Your task to perform on an android device: turn notification dots off Image 0: 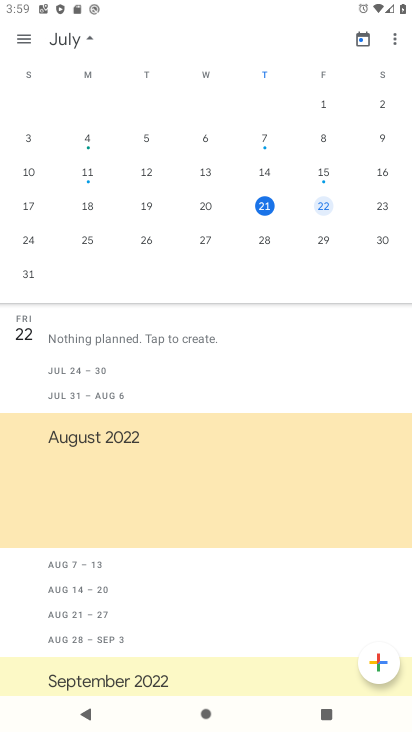
Step 0: press home button
Your task to perform on an android device: turn notification dots off Image 1: 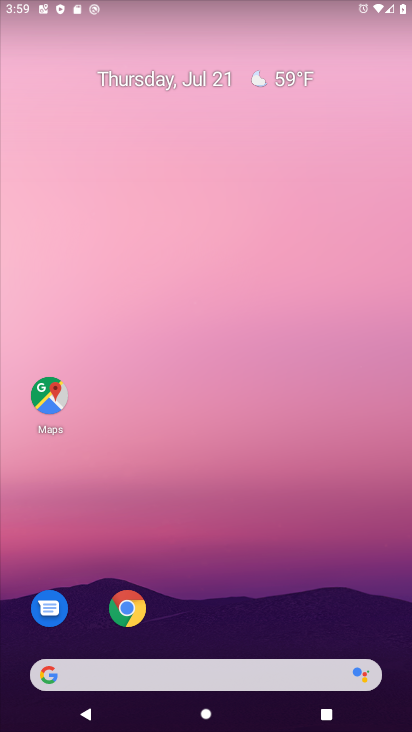
Step 1: drag from (200, 652) to (307, 94)
Your task to perform on an android device: turn notification dots off Image 2: 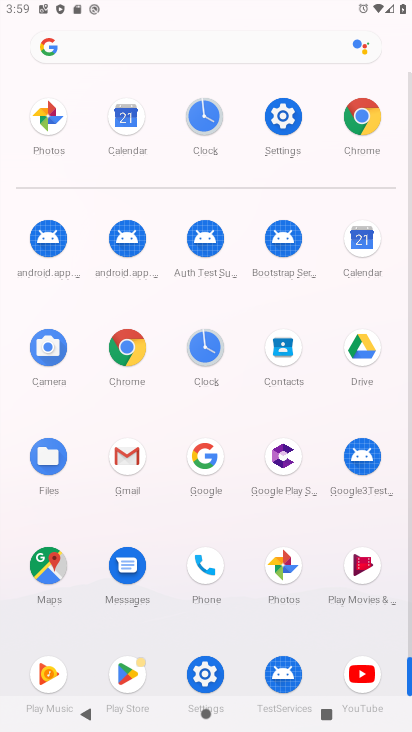
Step 2: click (294, 115)
Your task to perform on an android device: turn notification dots off Image 3: 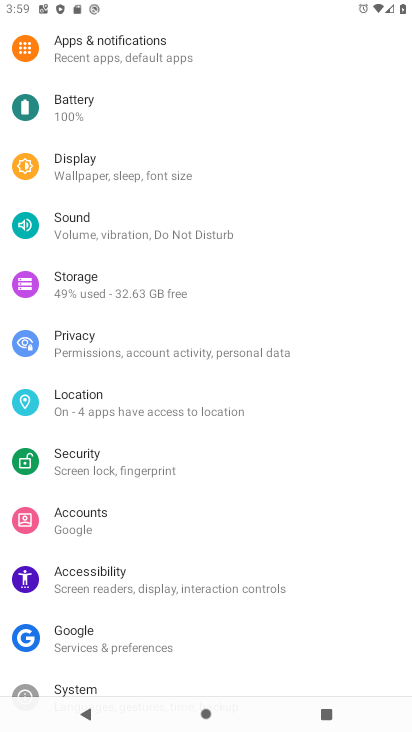
Step 3: click (145, 50)
Your task to perform on an android device: turn notification dots off Image 4: 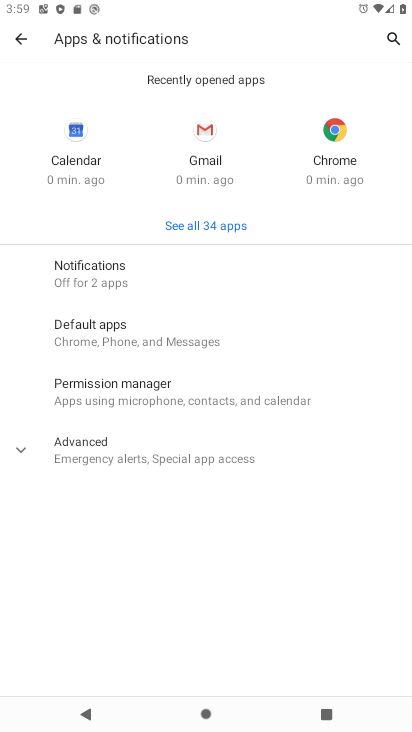
Step 4: click (124, 284)
Your task to perform on an android device: turn notification dots off Image 5: 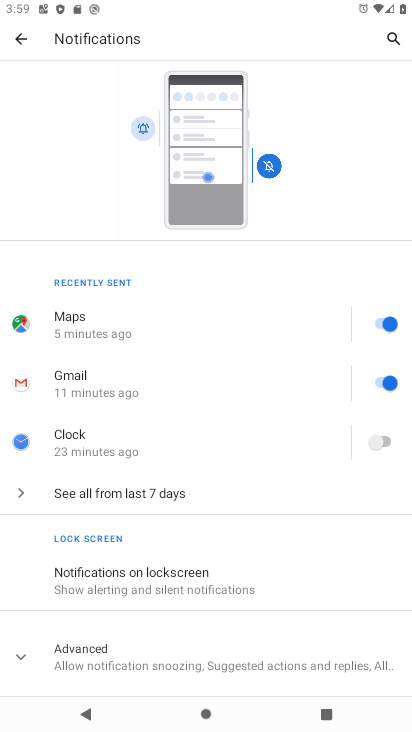
Step 5: drag from (178, 606) to (227, 320)
Your task to perform on an android device: turn notification dots off Image 6: 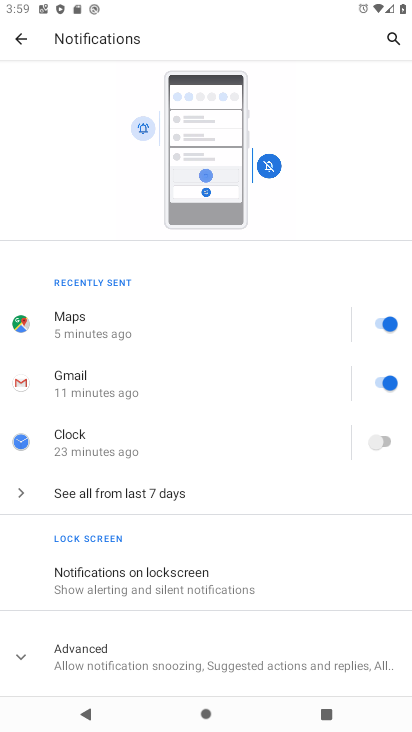
Step 6: click (175, 659)
Your task to perform on an android device: turn notification dots off Image 7: 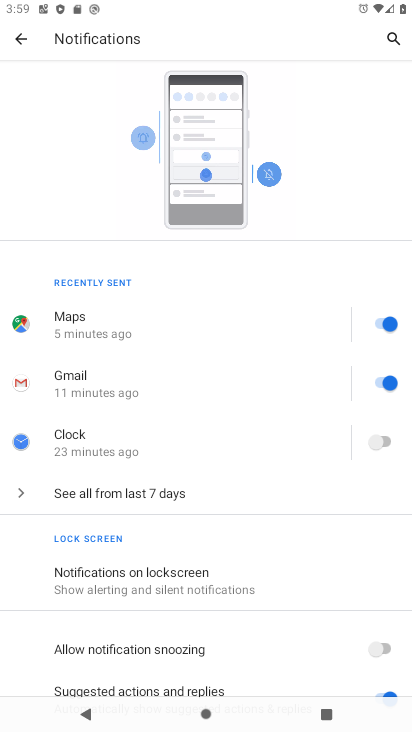
Step 7: drag from (265, 664) to (317, 362)
Your task to perform on an android device: turn notification dots off Image 8: 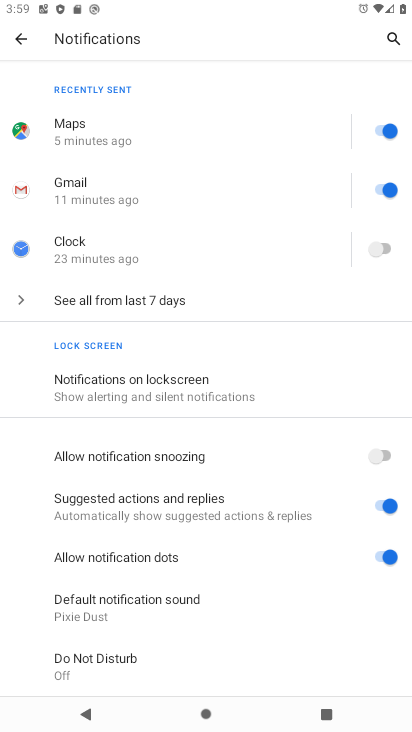
Step 8: click (384, 548)
Your task to perform on an android device: turn notification dots off Image 9: 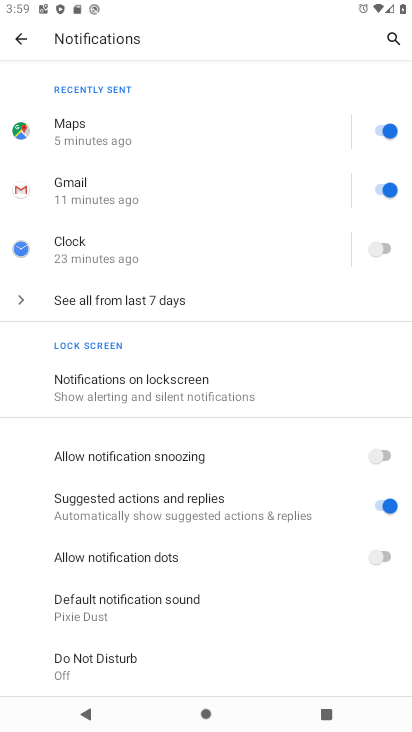
Step 9: task complete